Your task to perform on an android device: turn off wifi Image 0: 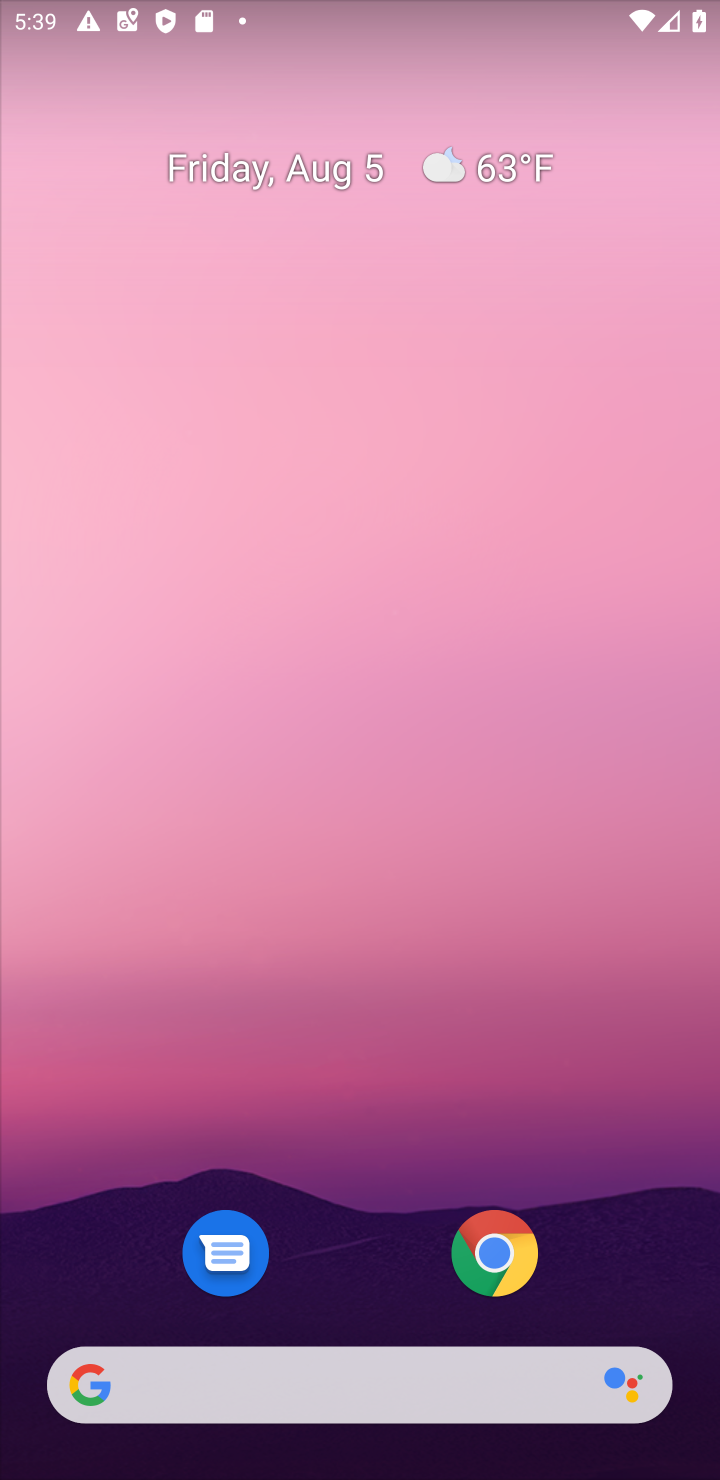
Step 0: click (386, 504)
Your task to perform on an android device: turn off wifi Image 1: 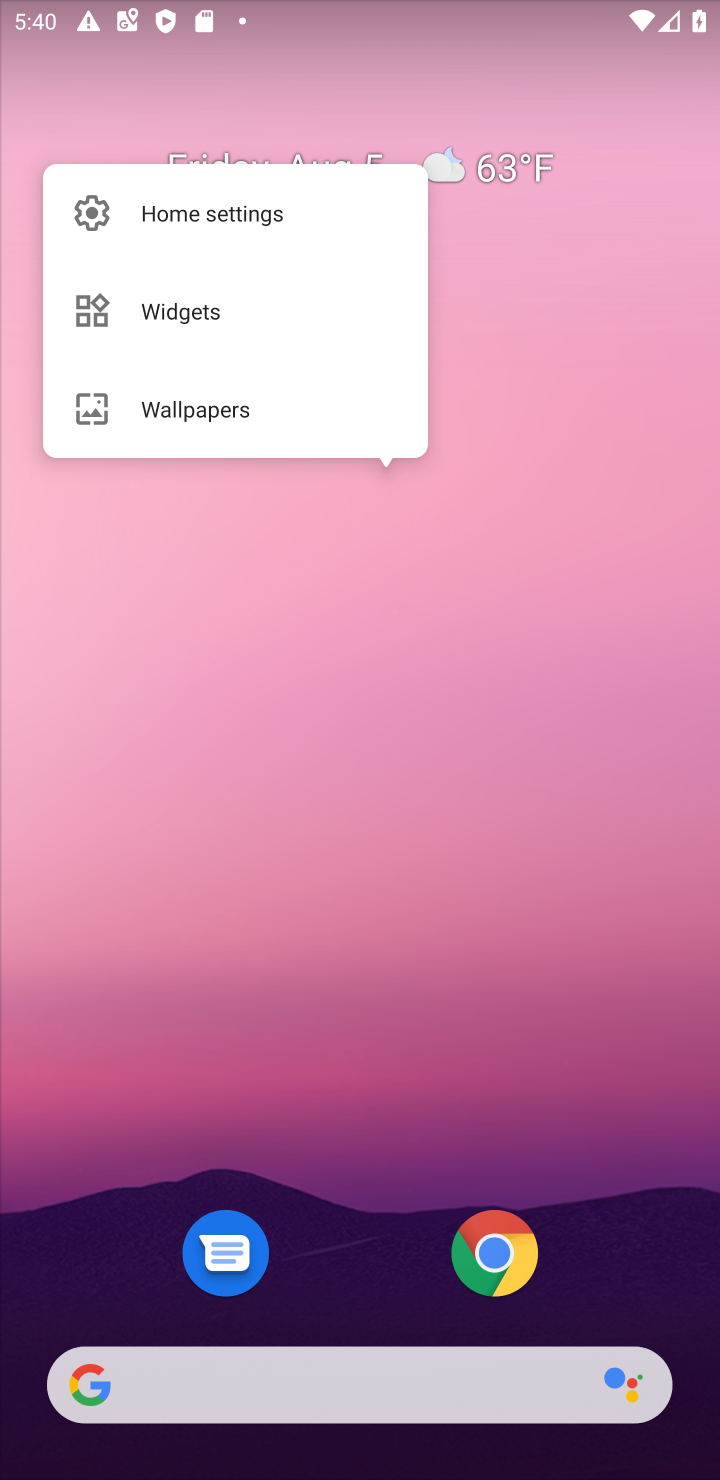
Step 1: drag from (333, 1067) to (389, 546)
Your task to perform on an android device: turn off wifi Image 2: 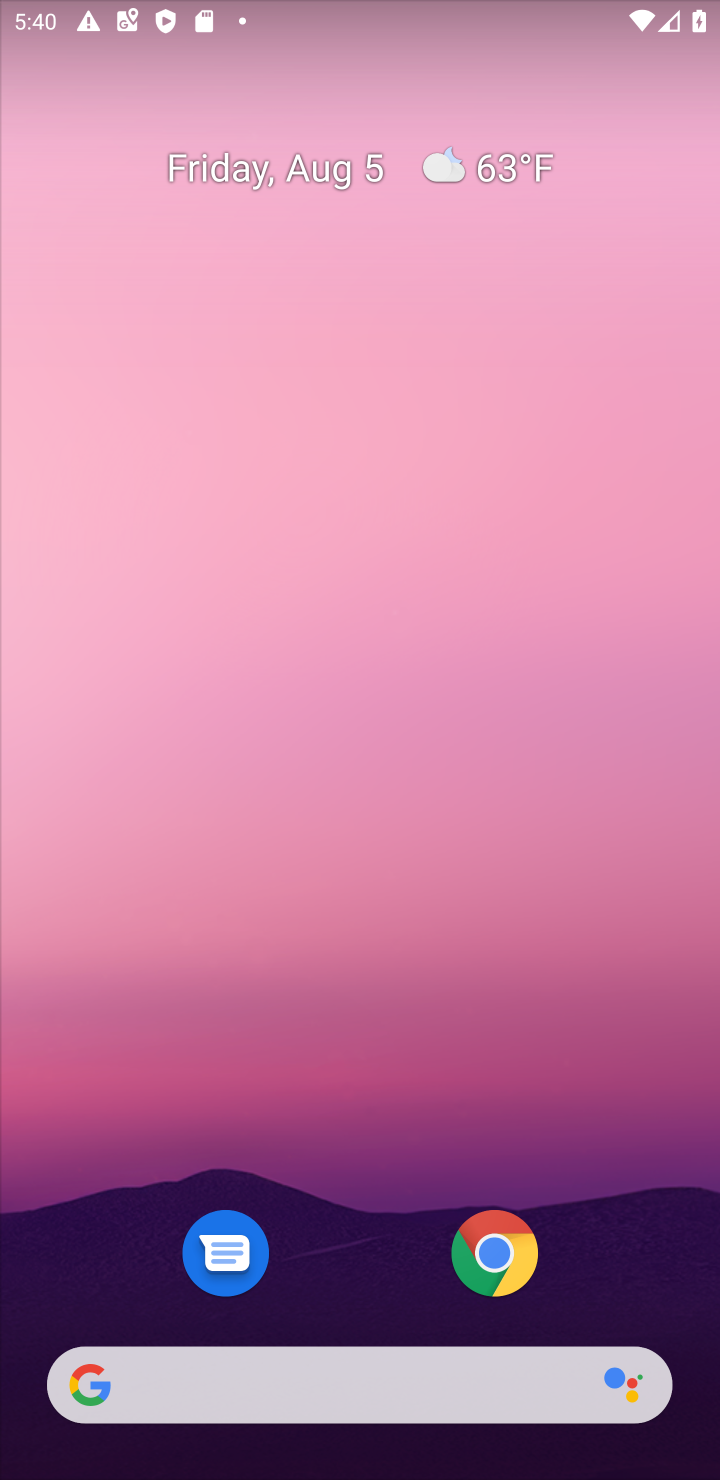
Step 2: drag from (350, 1315) to (347, 520)
Your task to perform on an android device: turn off wifi Image 3: 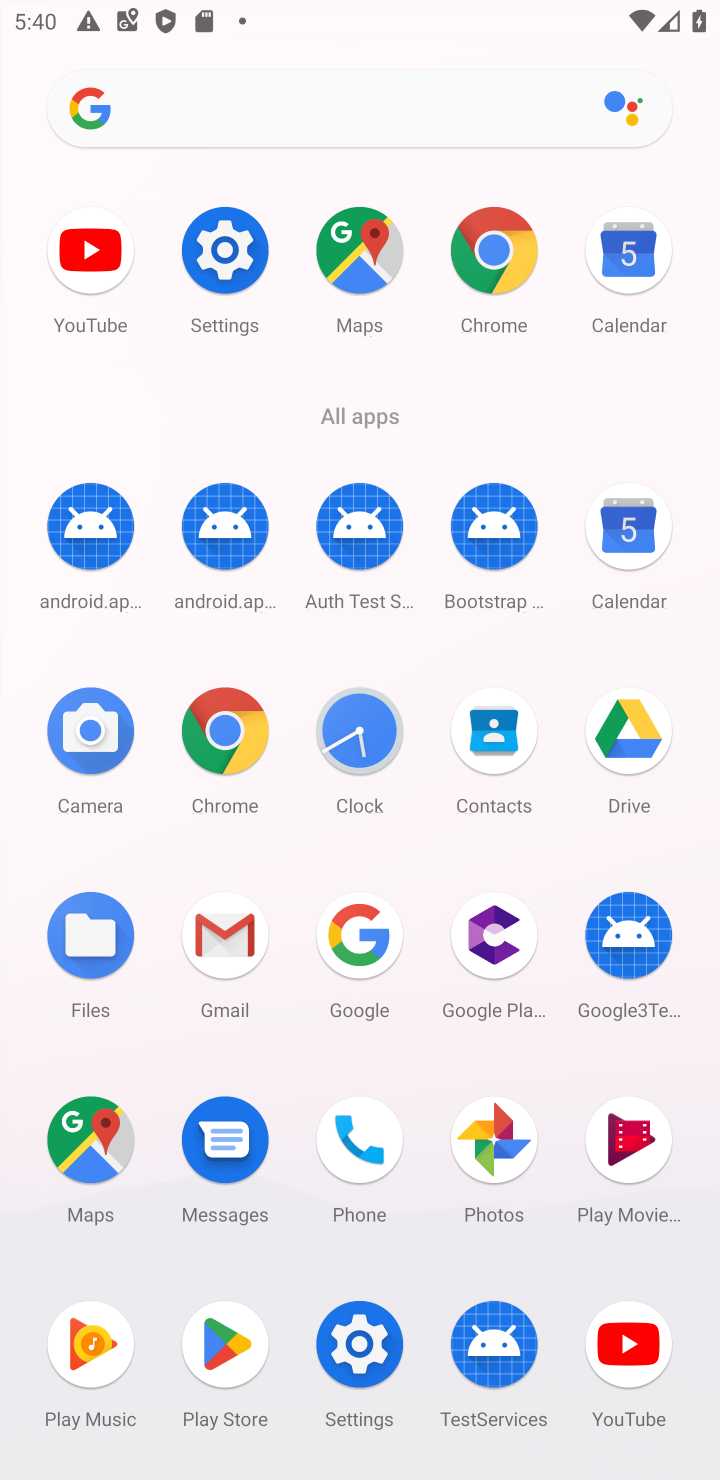
Step 3: click (374, 1331)
Your task to perform on an android device: turn off wifi Image 4: 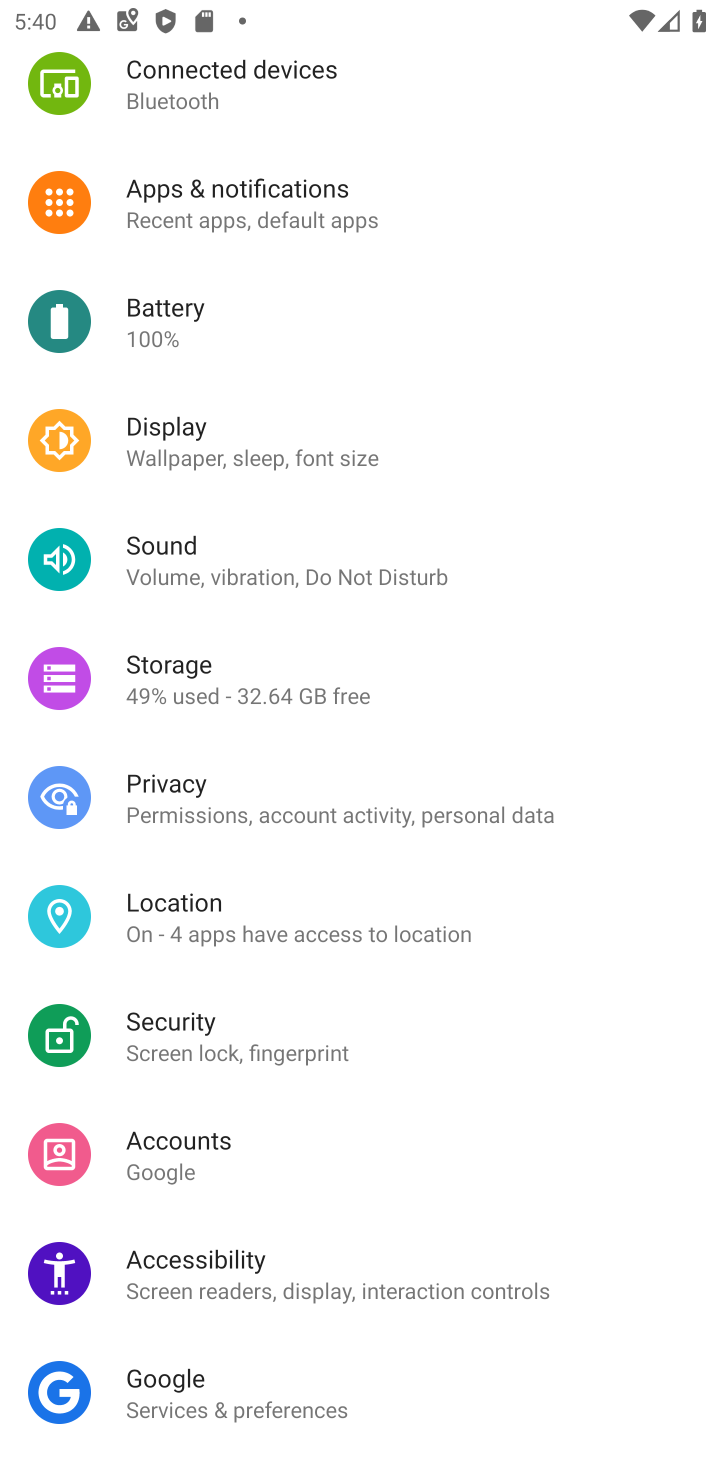
Step 4: drag from (296, 418) to (348, 1421)
Your task to perform on an android device: turn off wifi Image 5: 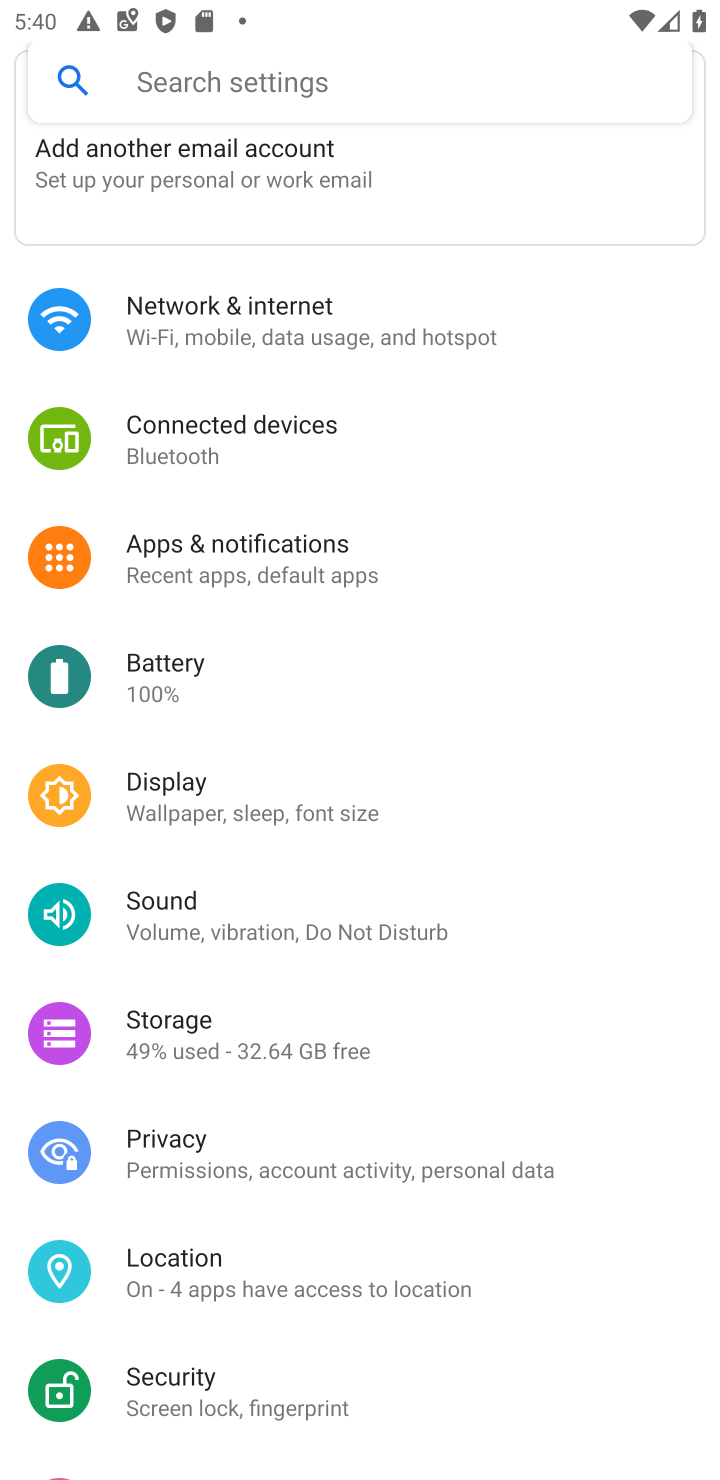
Step 5: click (298, 332)
Your task to perform on an android device: turn off wifi Image 6: 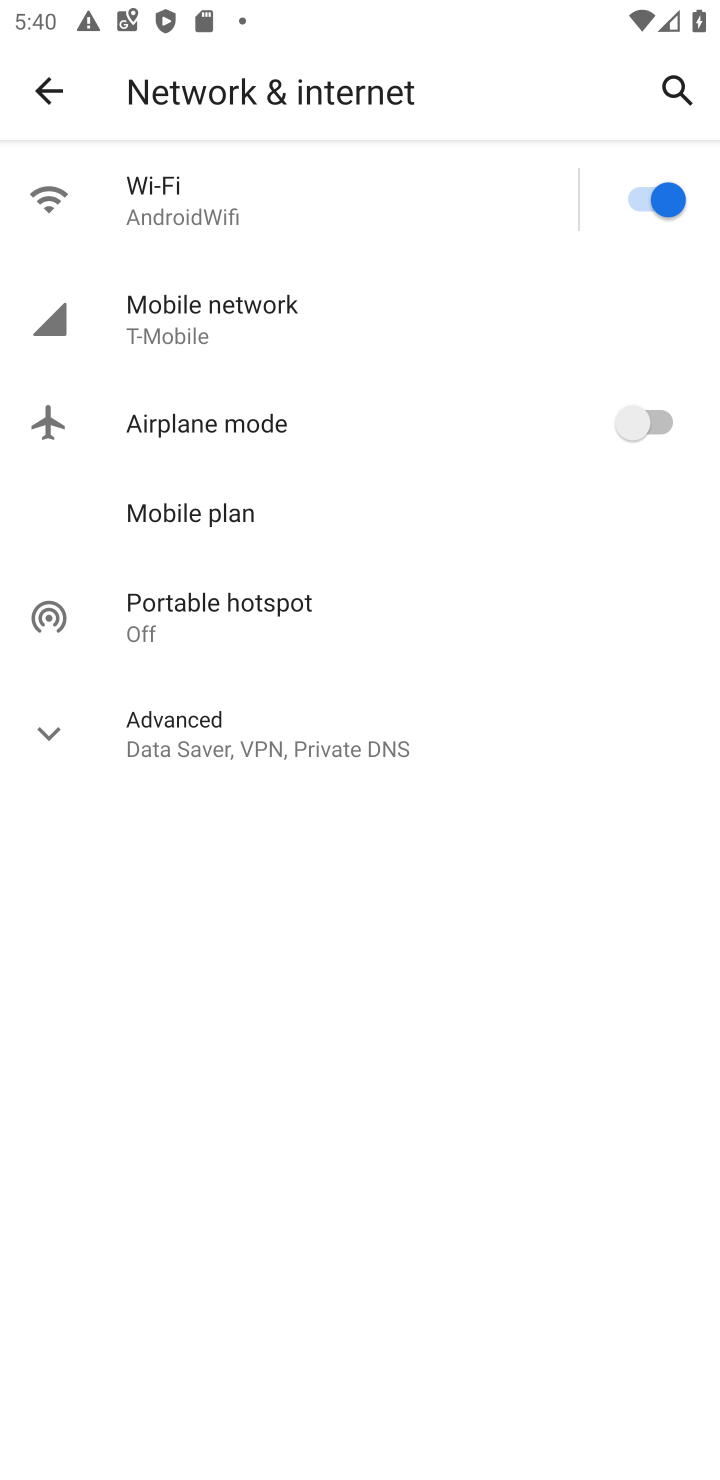
Step 6: click (635, 209)
Your task to perform on an android device: turn off wifi Image 7: 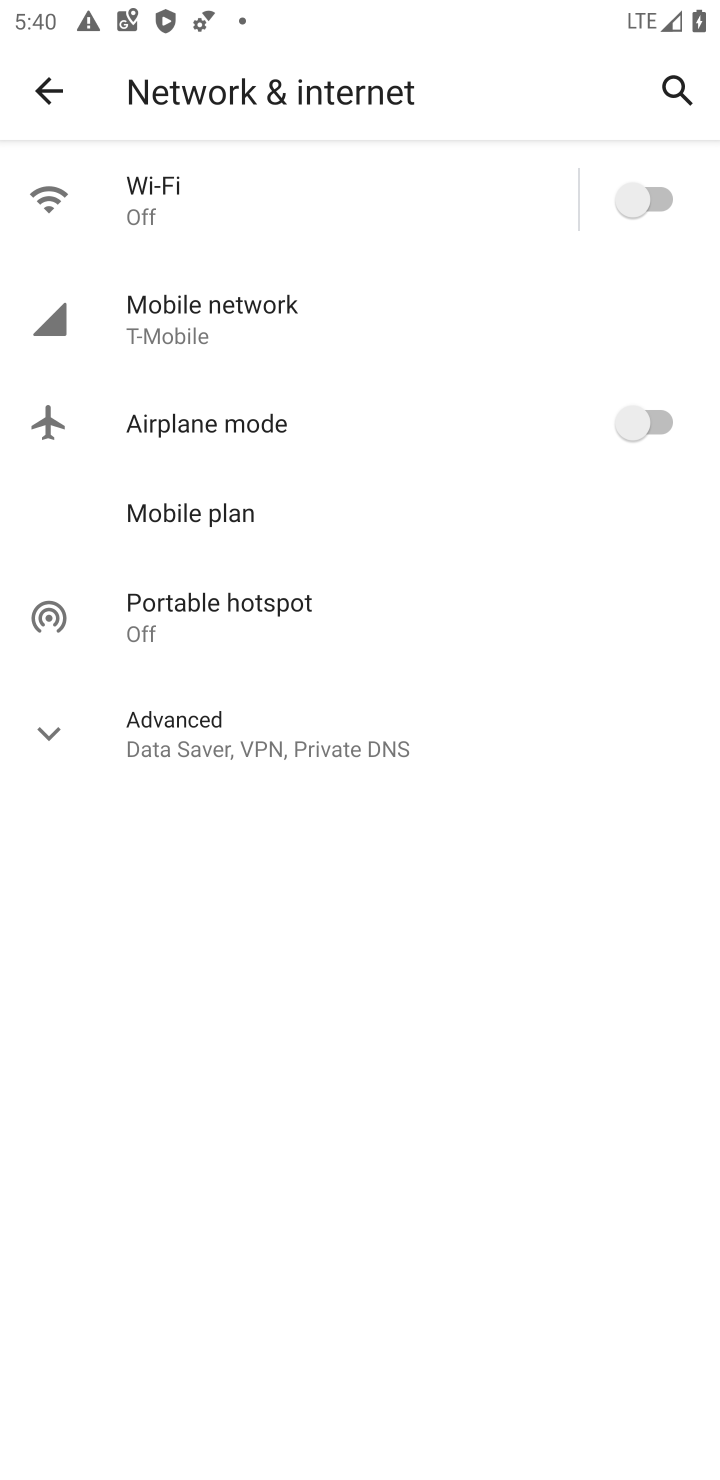
Step 7: task complete